Your task to perform on an android device: Go to notification settings Image 0: 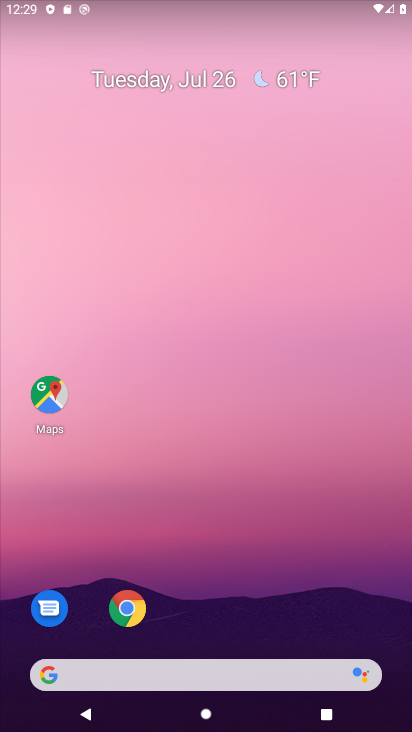
Step 0: drag from (343, 599) to (350, 166)
Your task to perform on an android device: Go to notification settings Image 1: 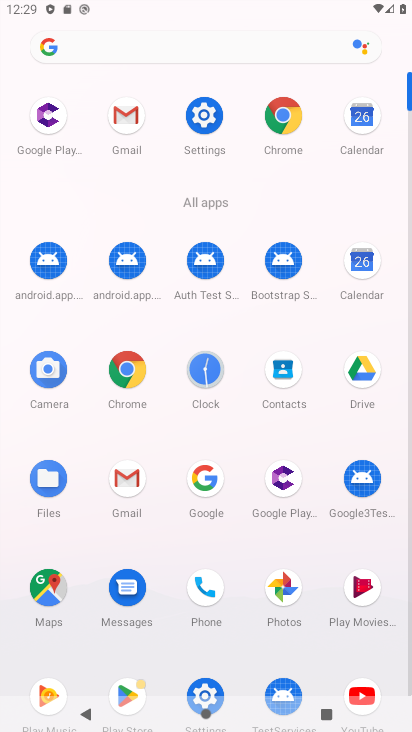
Step 1: click (198, 123)
Your task to perform on an android device: Go to notification settings Image 2: 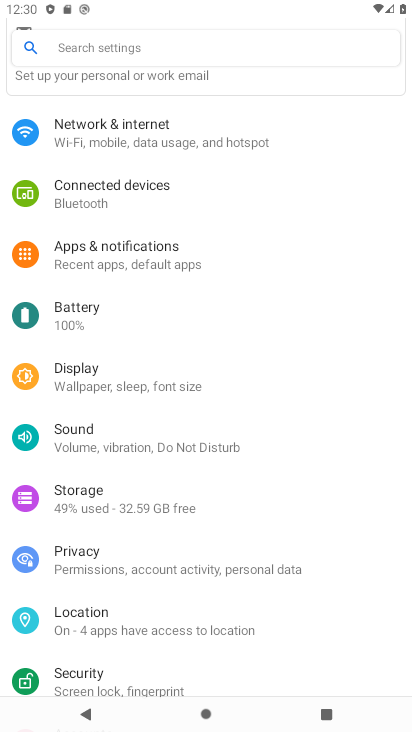
Step 2: drag from (337, 443) to (335, 366)
Your task to perform on an android device: Go to notification settings Image 3: 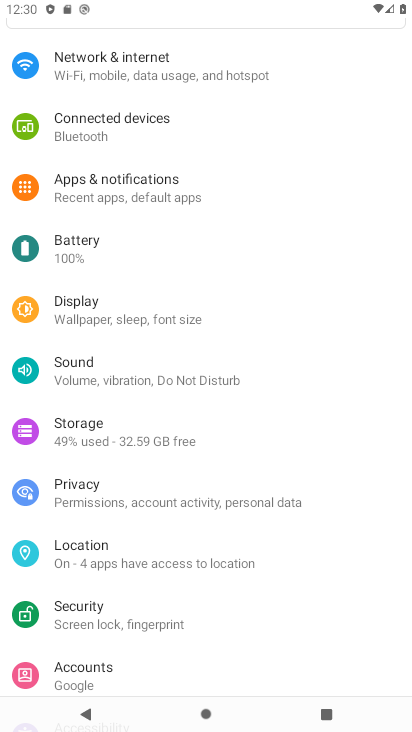
Step 3: drag from (334, 497) to (333, 362)
Your task to perform on an android device: Go to notification settings Image 4: 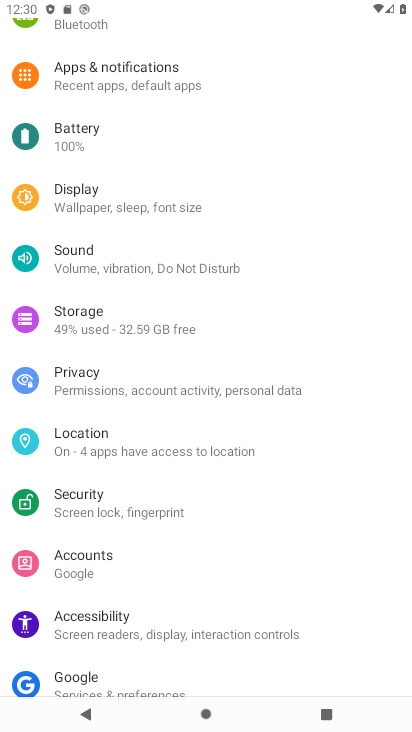
Step 4: drag from (320, 504) to (326, 385)
Your task to perform on an android device: Go to notification settings Image 5: 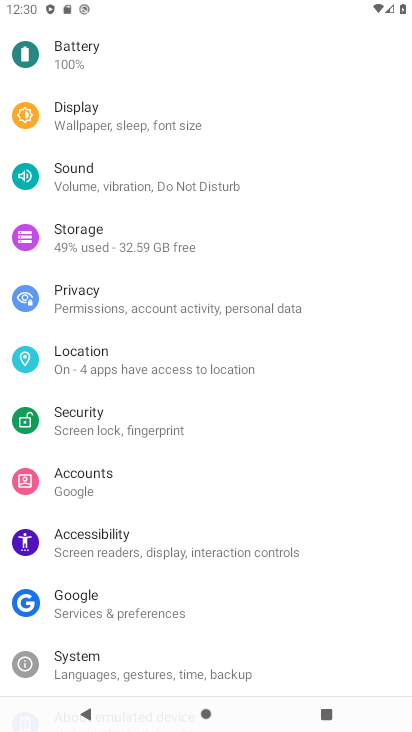
Step 5: drag from (323, 534) to (322, 387)
Your task to perform on an android device: Go to notification settings Image 6: 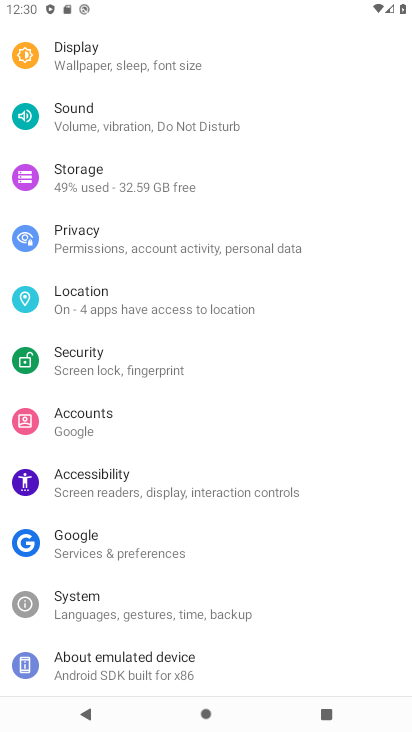
Step 6: drag from (314, 587) to (315, 443)
Your task to perform on an android device: Go to notification settings Image 7: 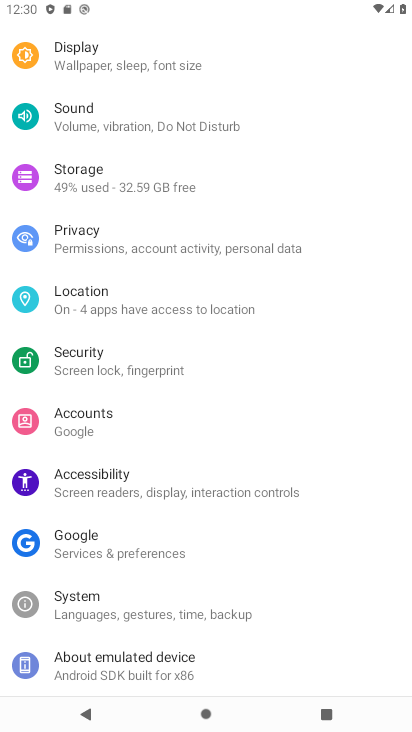
Step 7: drag from (335, 330) to (334, 425)
Your task to perform on an android device: Go to notification settings Image 8: 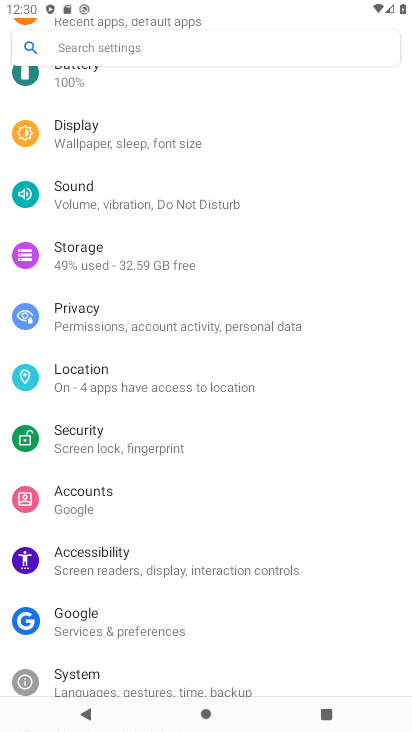
Step 8: drag from (346, 252) to (348, 408)
Your task to perform on an android device: Go to notification settings Image 9: 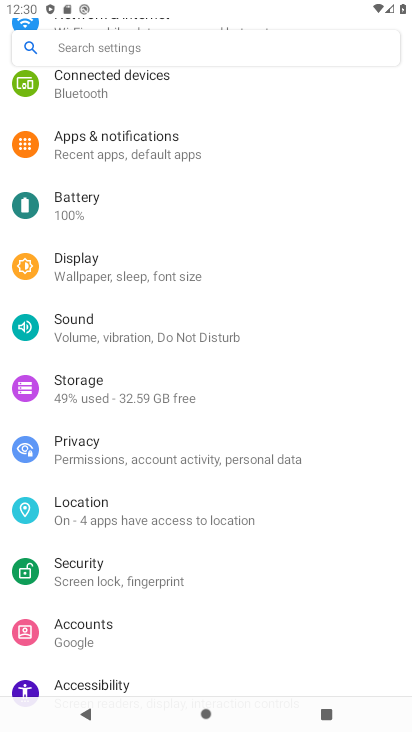
Step 9: drag from (328, 233) to (333, 350)
Your task to perform on an android device: Go to notification settings Image 10: 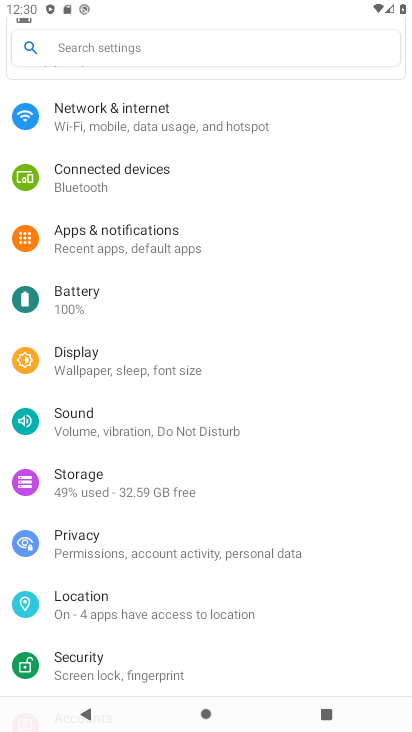
Step 10: drag from (276, 214) to (283, 333)
Your task to perform on an android device: Go to notification settings Image 11: 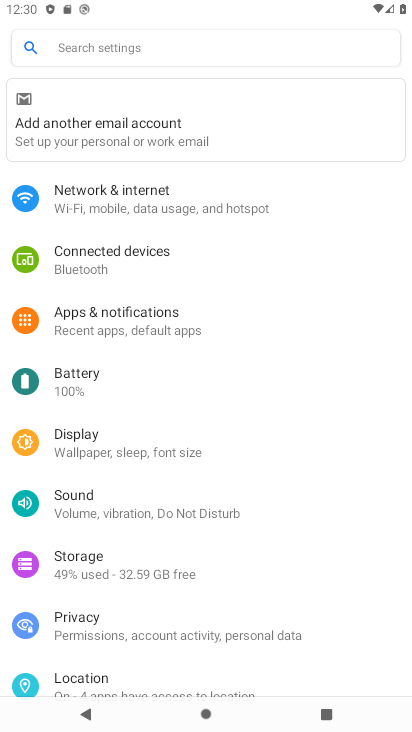
Step 11: click (191, 334)
Your task to perform on an android device: Go to notification settings Image 12: 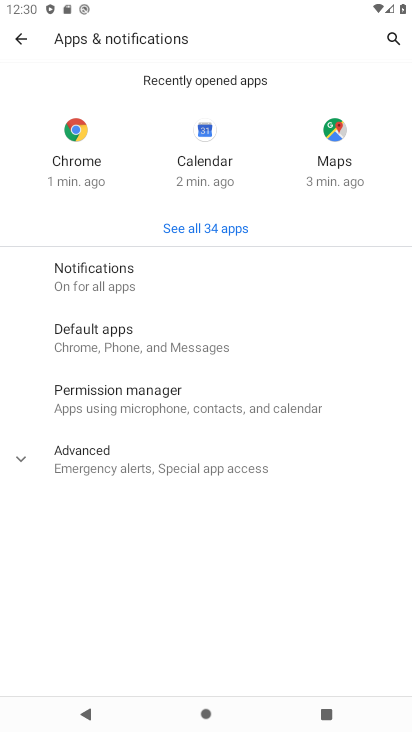
Step 12: click (134, 276)
Your task to perform on an android device: Go to notification settings Image 13: 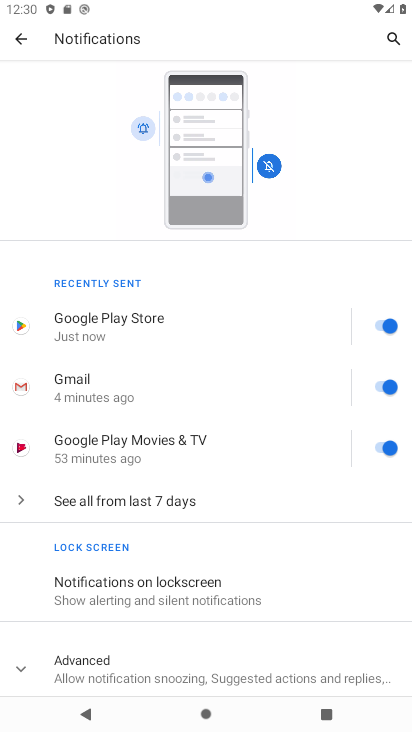
Step 13: task complete